Your task to perform on an android device: turn smart compose on in the gmail app Image 0: 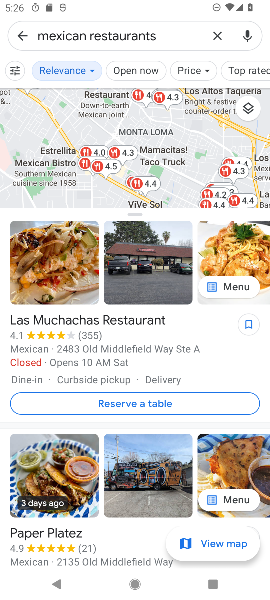
Step 0: press home button
Your task to perform on an android device: turn smart compose on in the gmail app Image 1: 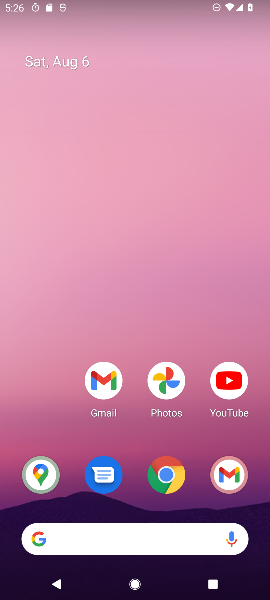
Step 1: click (107, 384)
Your task to perform on an android device: turn smart compose on in the gmail app Image 2: 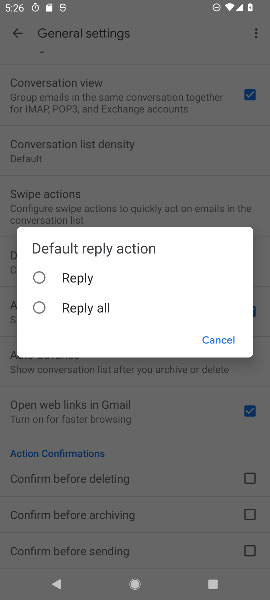
Step 2: click (208, 339)
Your task to perform on an android device: turn smart compose on in the gmail app Image 3: 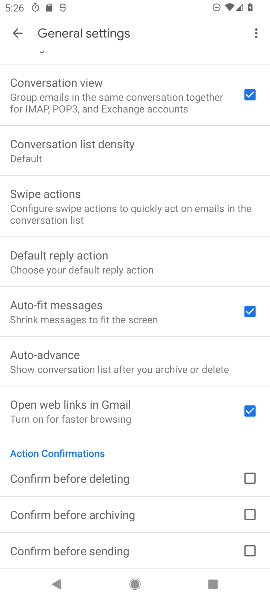
Step 3: drag from (119, 497) to (75, 175)
Your task to perform on an android device: turn smart compose on in the gmail app Image 4: 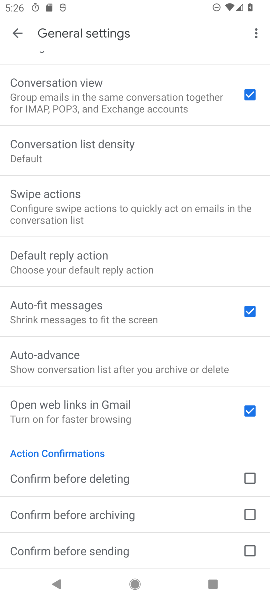
Step 4: click (20, 34)
Your task to perform on an android device: turn smart compose on in the gmail app Image 5: 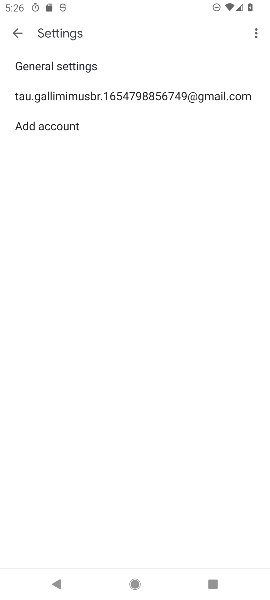
Step 5: click (89, 101)
Your task to perform on an android device: turn smart compose on in the gmail app Image 6: 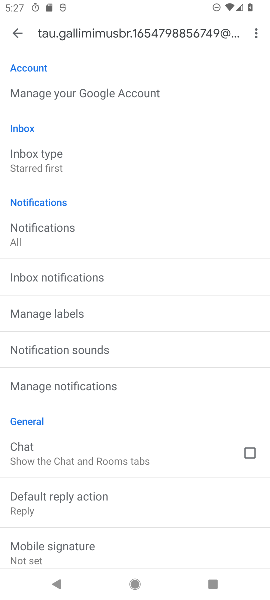
Step 6: drag from (166, 532) to (71, 278)
Your task to perform on an android device: turn smart compose on in the gmail app Image 7: 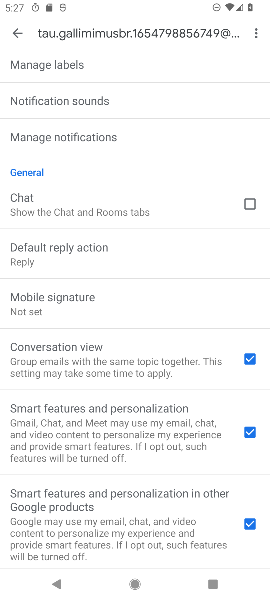
Step 7: click (206, 273)
Your task to perform on an android device: turn smart compose on in the gmail app Image 8: 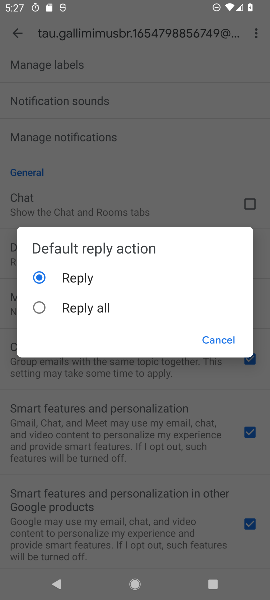
Step 8: click (205, 336)
Your task to perform on an android device: turn smart compose on in the gmail app Image 9: 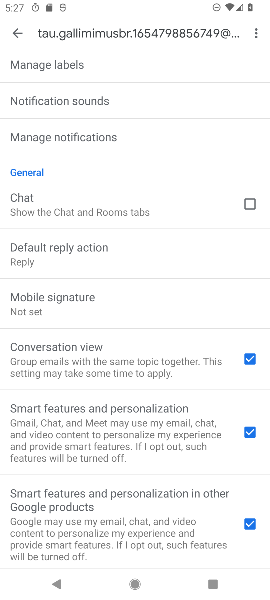
Step 9: task complete